Your task to perform on an android device: Toggle the flashlight Image 0: 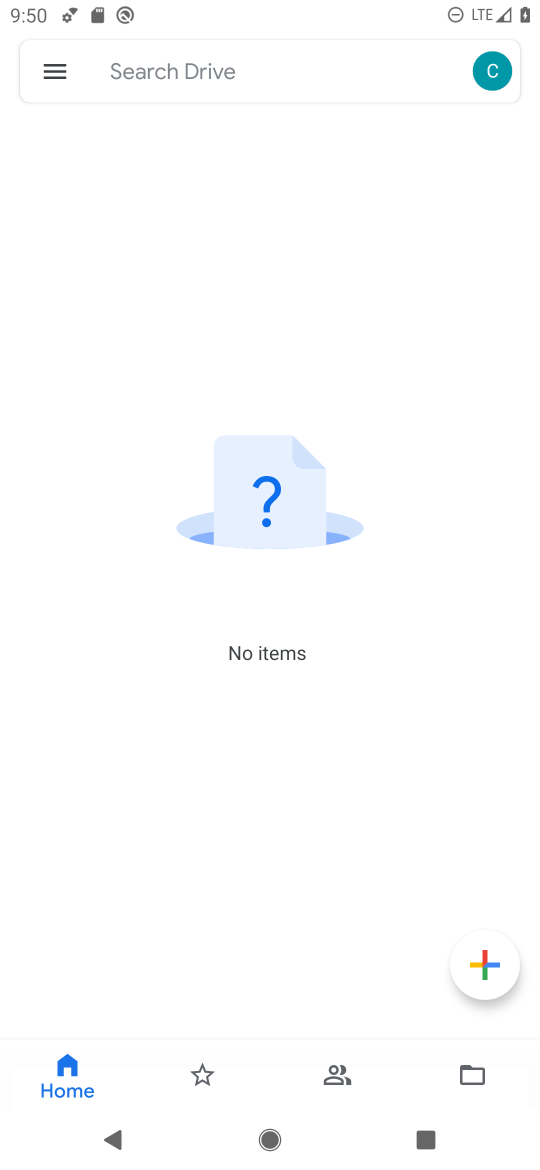
Step 0: press home button
Your task to perform on an android device: Toggle the flashlight Image 1: 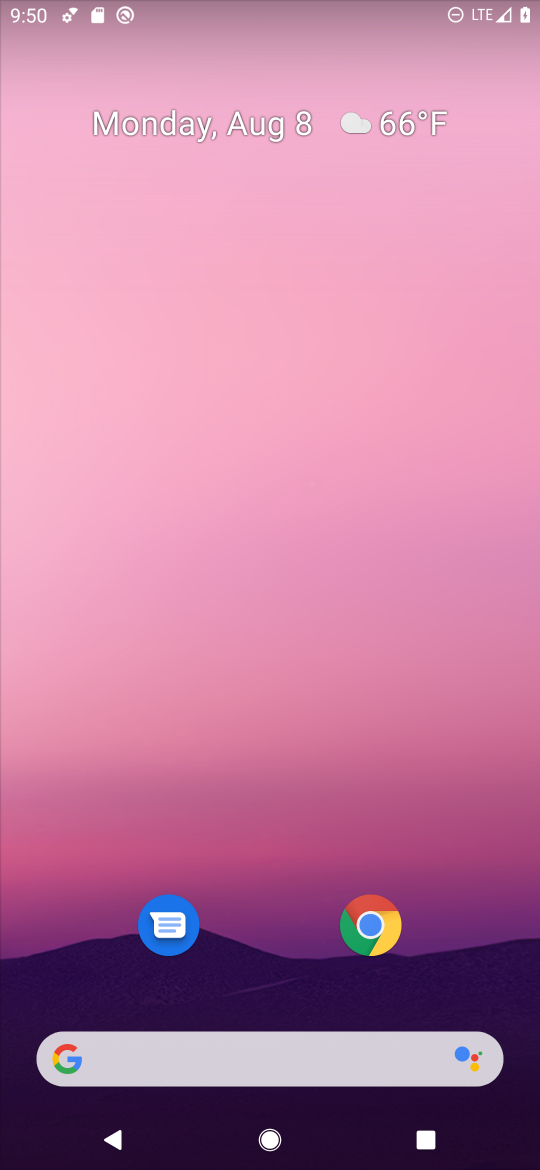
Step 1: drag from (270, 864) to (244, 114)
Your task to perform on an android device: Toggle the flashlight Image 2: 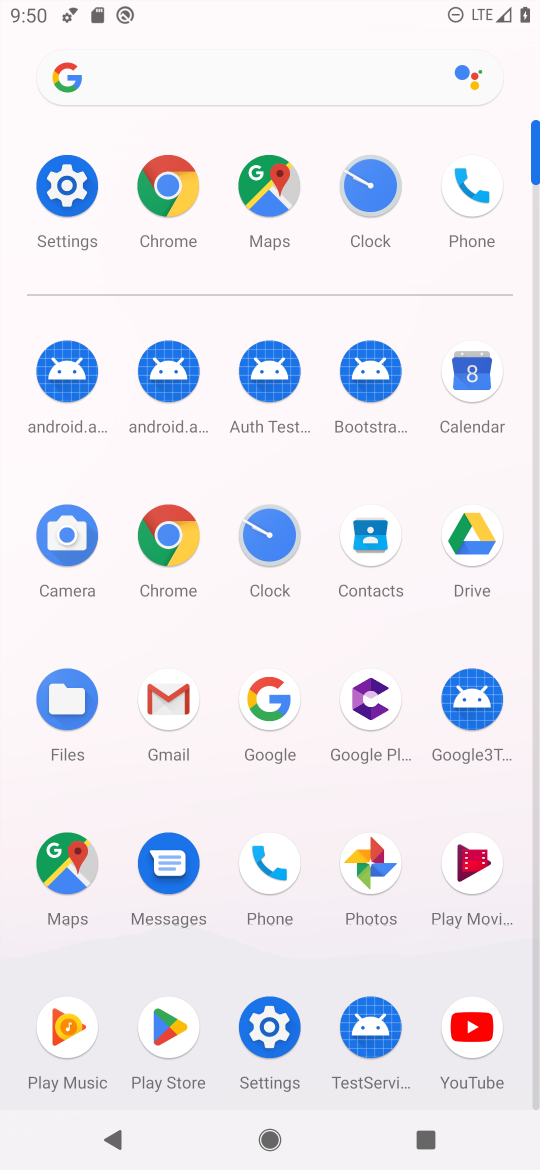
Step 2: click (278, 1034)
Your task to perform on an android device: Toggle the flashlight Image 3: 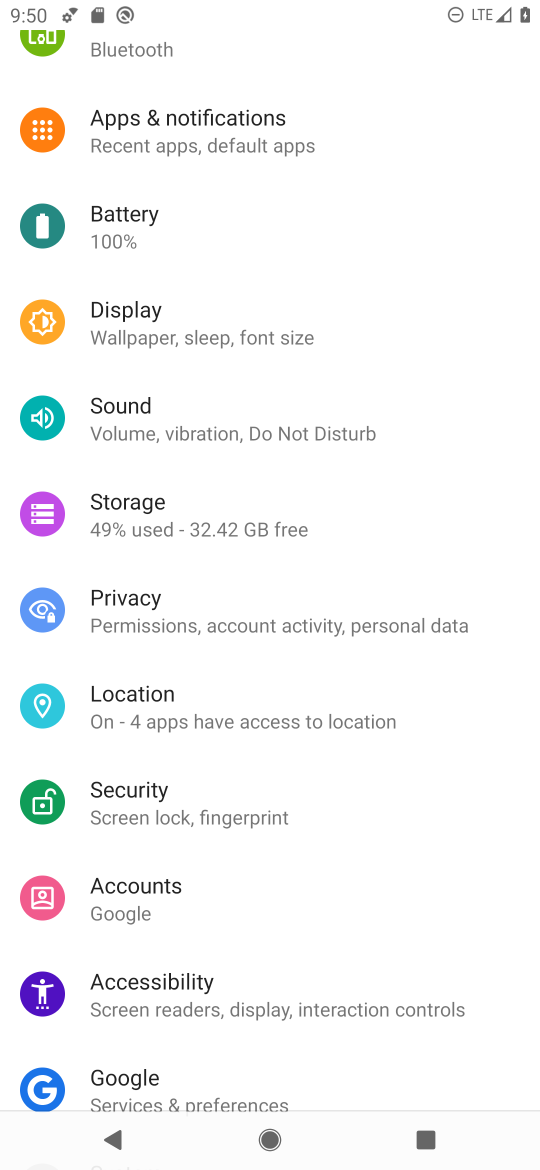
Step 3: drag from (255, 235) to (207, 611)
Your task to perform on an android device: Toggle the flashlight Image 4: 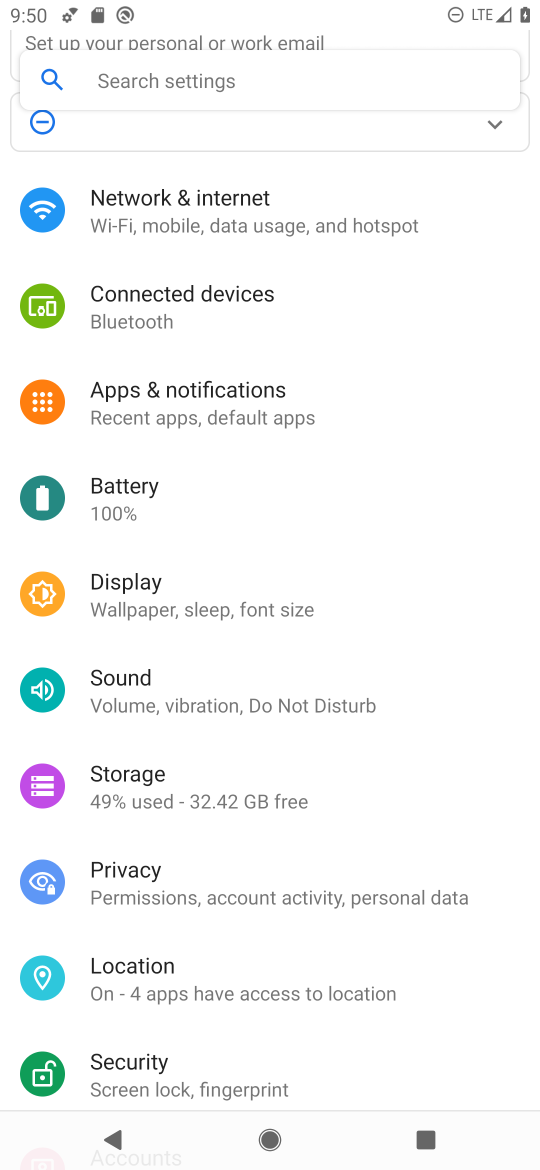
Step 4: click (157, 588)
Your task to perform on an android device: Toggle the flashlight Image 5: 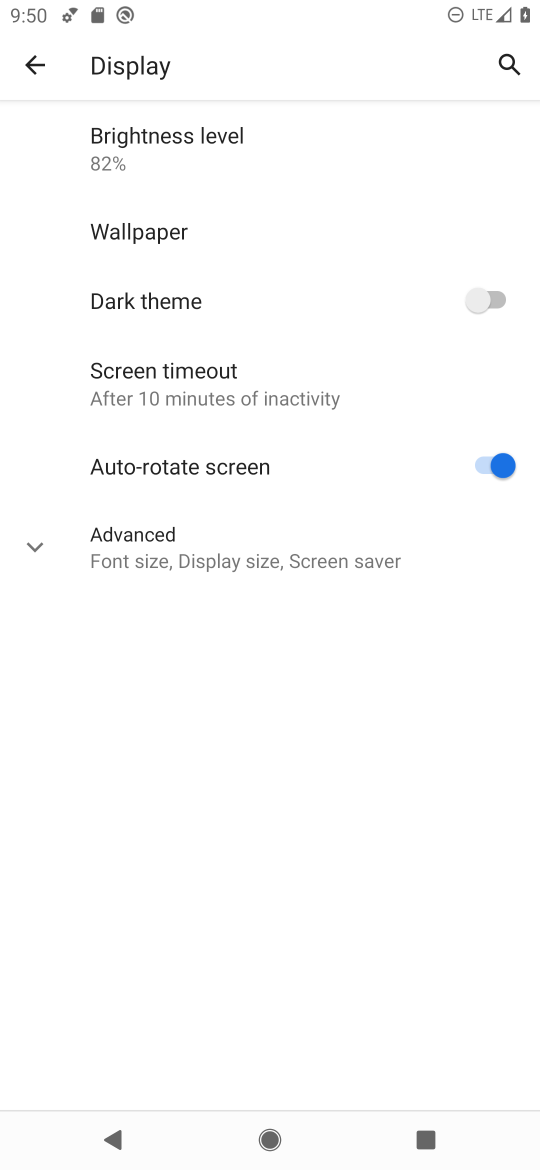
Step 5: click (164, 381)
Your task to perform on an android device: Toggle the flashlight Image 6: 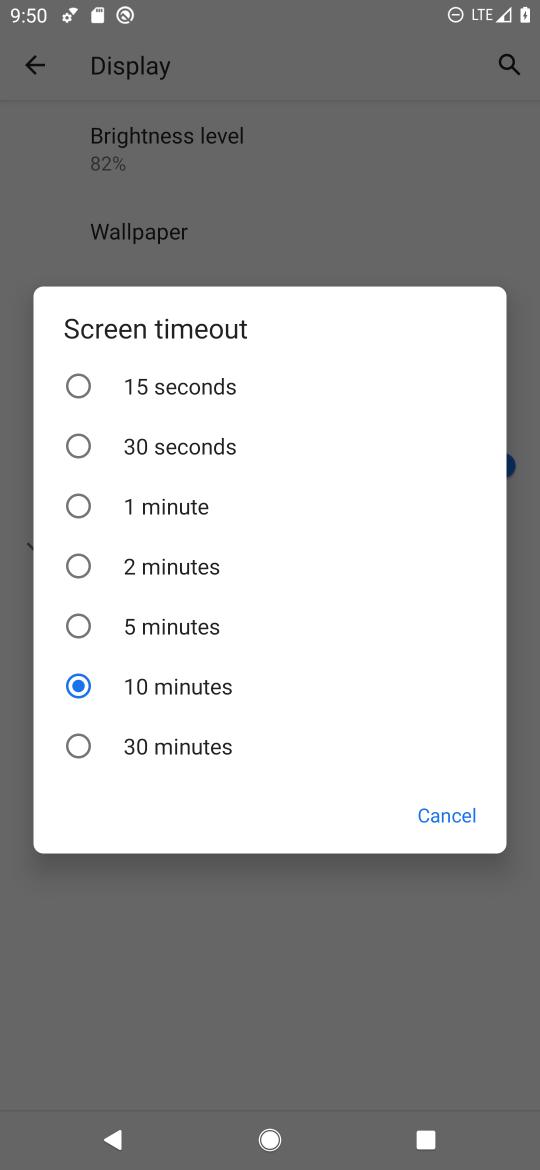
Step 6: task complete